Your task to perform on an android device: toggle notifications settings in the gmail app Image 0: 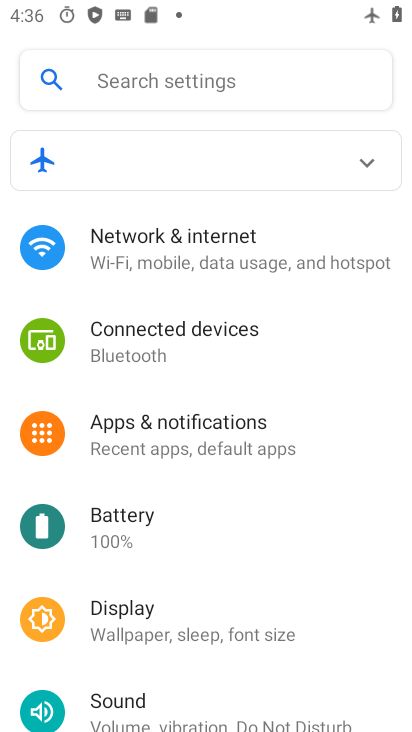
Step 0: drag from (257, 618) to (282, 335)
Your task to perform on an android device: toggle notifications settings in the gmail app Image 1: 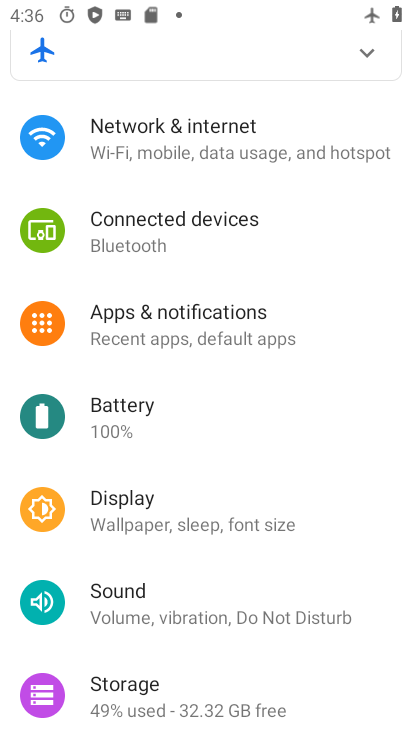
Step 1: click (202, 347)
Your task to perform on an android device: toggle notifications settings in the gmail app Image 2: 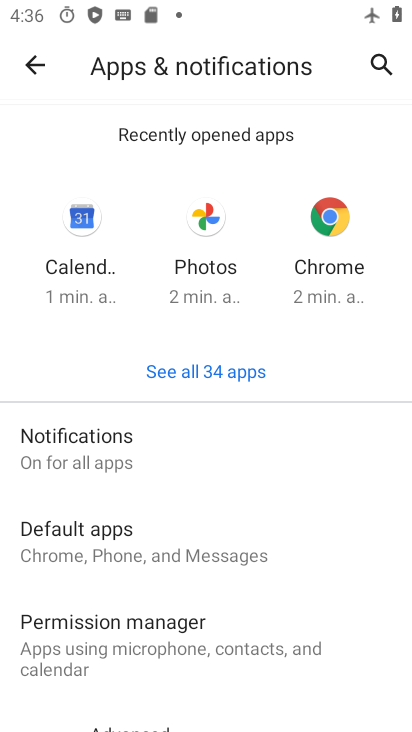
Step 2: drag from (2, 344) to (310, 88)
Your task to perform on an android device: toggle notifications settings in the gmail app Image 3: 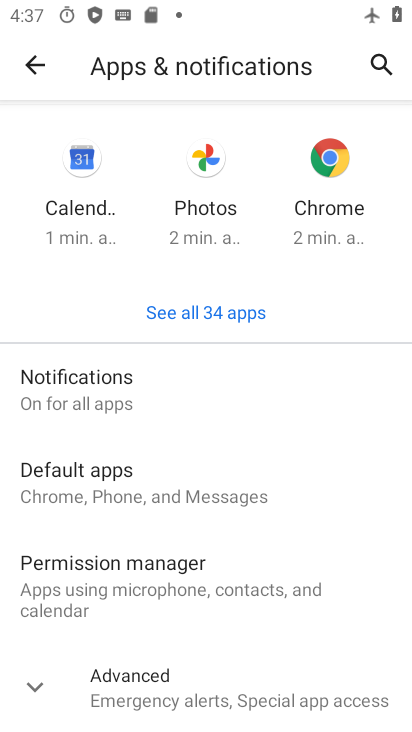
Step 3: click (212, 318)
Your task to perform on an android device: toggle notifications settings in the gmail app Image 4: 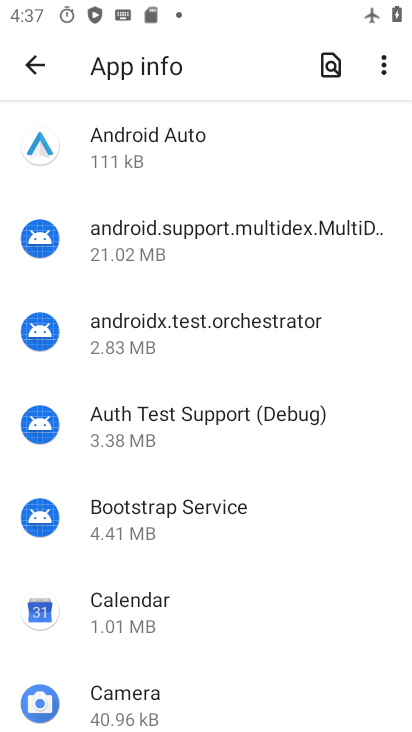
Step 4: drag from (220, 559) to (349, 29)
Your task to perform on an android device: toggle notifications settings in the gmail app Image 5: 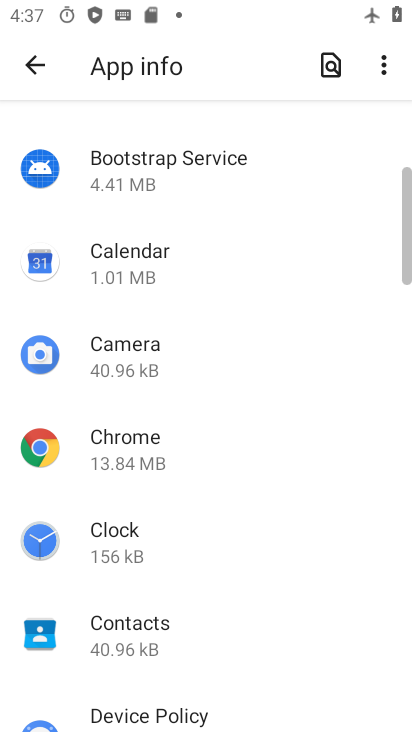
Step 5: drag from (174, 555) to (288, 61)
Your task to perform on an android device: toggle notifications settings in the gmail app Image 6: 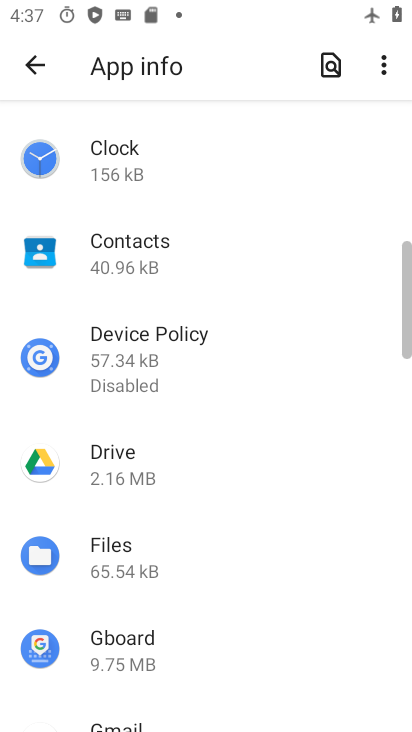
Step 6: drag from (166, 581) to (255, 163)
Your task to perform on an android device: toggle notifications settings in the gmail app Image 7: 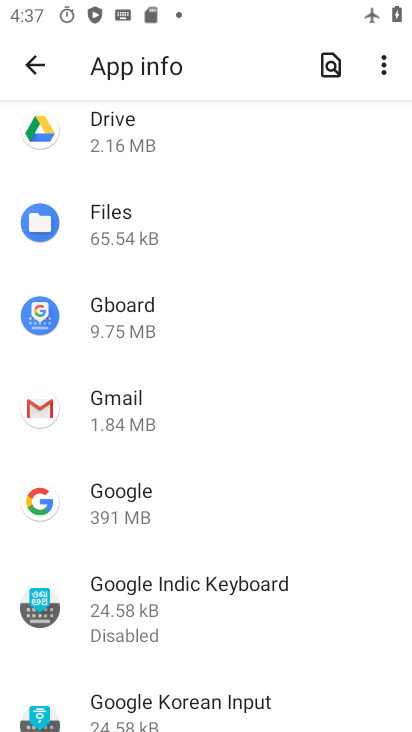
Step 7: click (119, 403)
Your task to perform on an android device: toggle notifications settings in the gmail app Image 8: 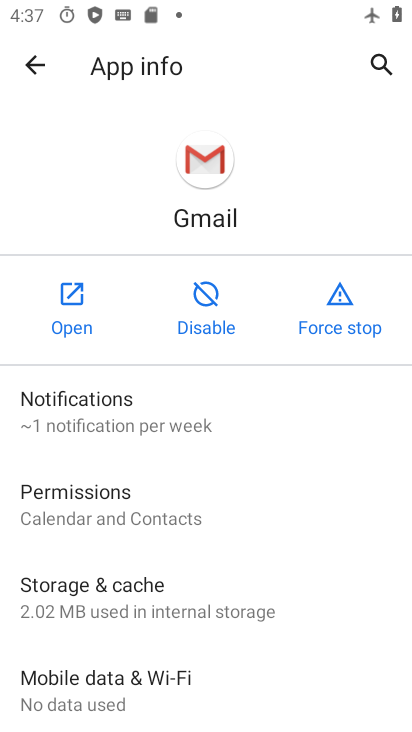
Step 8: click (135, 424)
Your task to perform on an android device: toggle notifications settings in the gmail app Image 9: 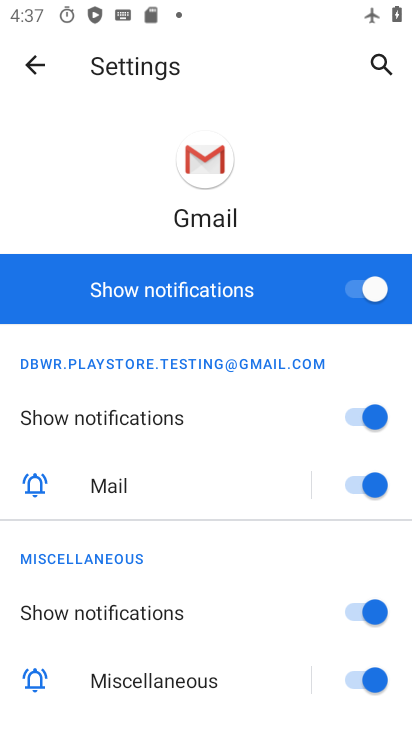
Step 9: click (376, 287)
Your task to perform on an android device: toggle notifications settings in the gmail app Image 10: 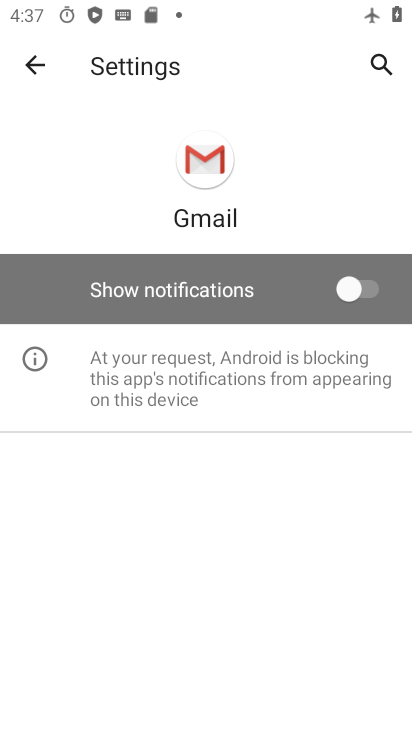
Step 10: task complete